Your task to perform on an android device: Go to display settings Image 0: 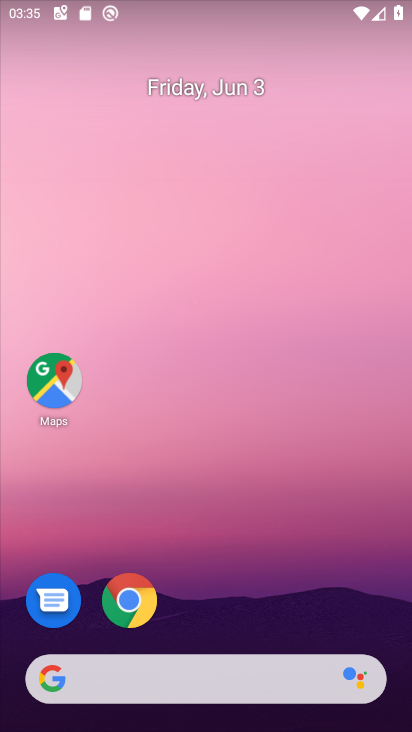
Step 0: drag from (252, 553) to (239, 138)
Your task to perform on an android device: Go to display settings Image 1: 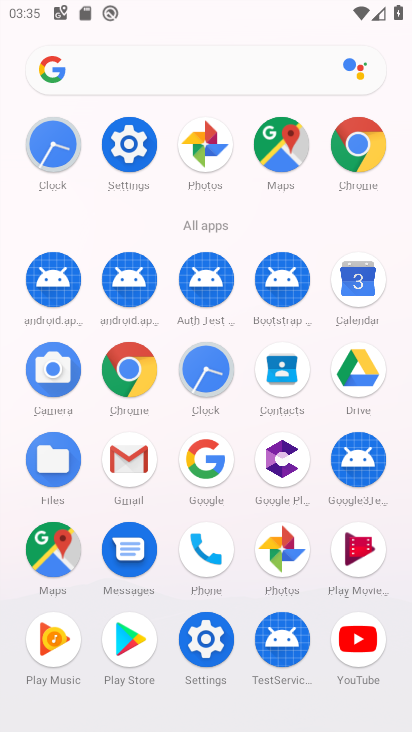
Step 1: click (116, 142)
Your task to perform on an android device: Go to display settings Image 2: 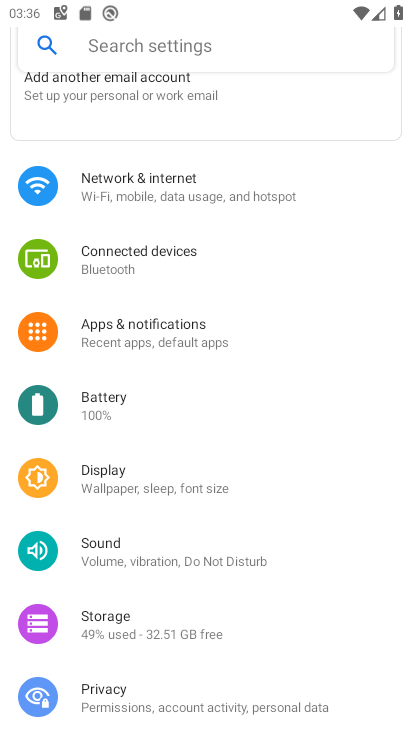
Step 2: click (129, 480)
Your task to perform on an android device: Go to display settings Image 3: 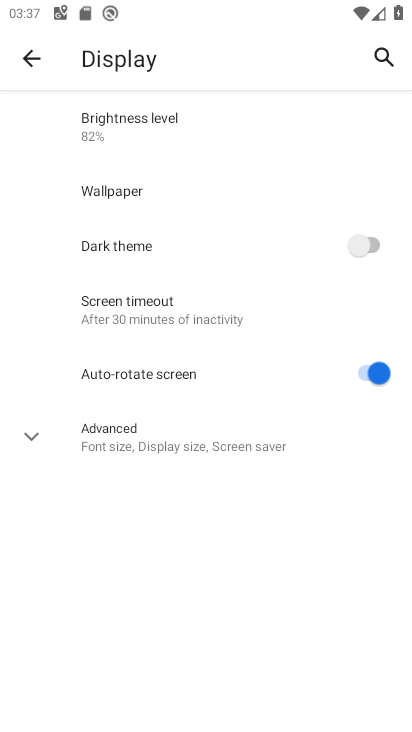
Step 3: task complete